Your task to perform on an android device: Open settings on Google Maps Image 0: 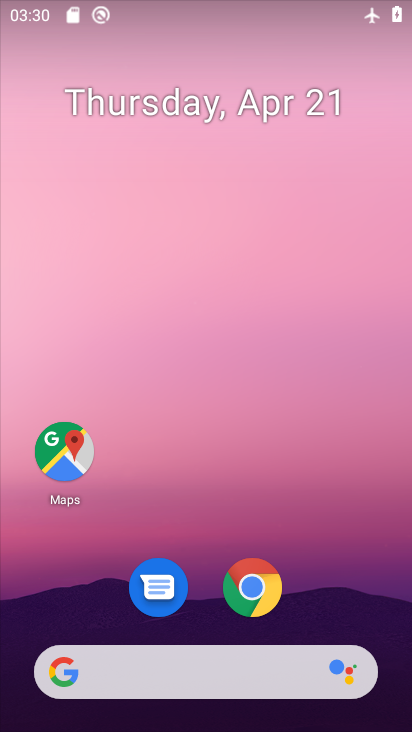
Step 0: drag from (342, 608) to (379, 225)
Your task to perform on an android device: Open settings on Google Maps Image 1: 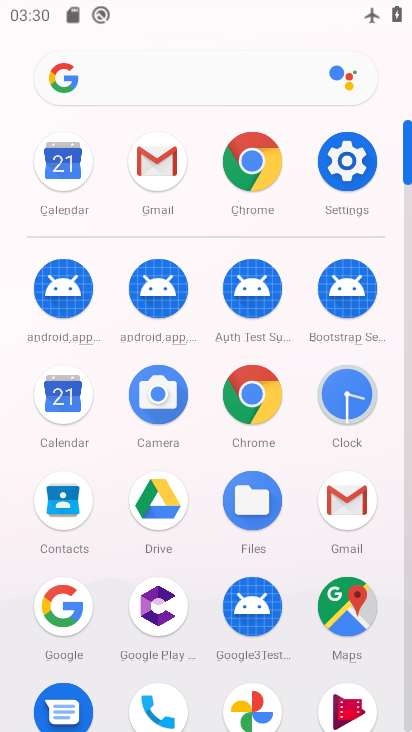
Step 1: click (357, 614)
Your task to perform on an android device: Open settings on Google Maps Image 2: 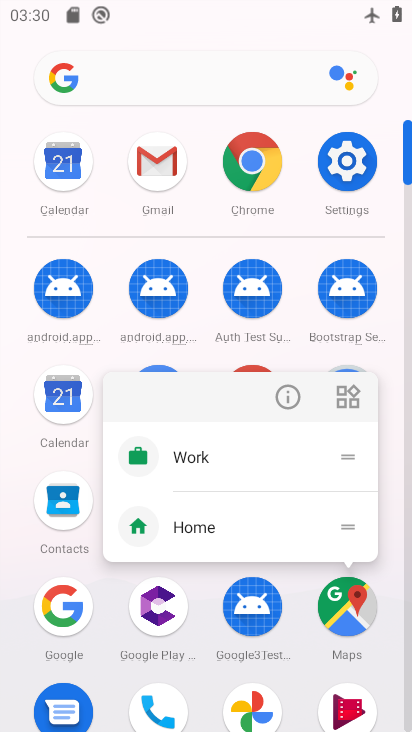
Step 2: click (357, 614)
Your task to perform on an android device: Open settings on Google Maps Image 3: 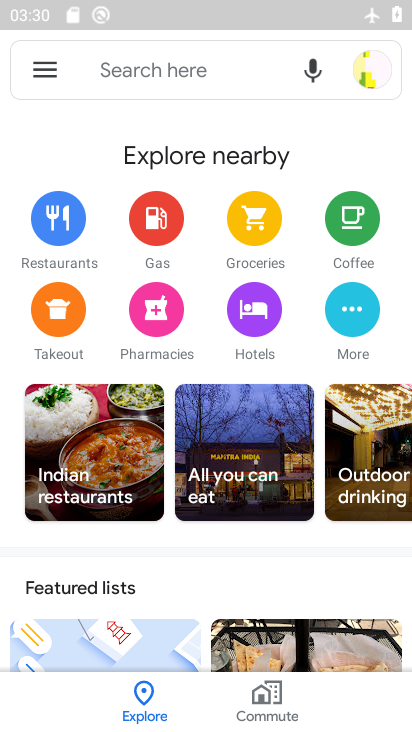
Step 3: click (40, 72)
Your task to perform on an android device: Open settings on Google Maps Image 4: 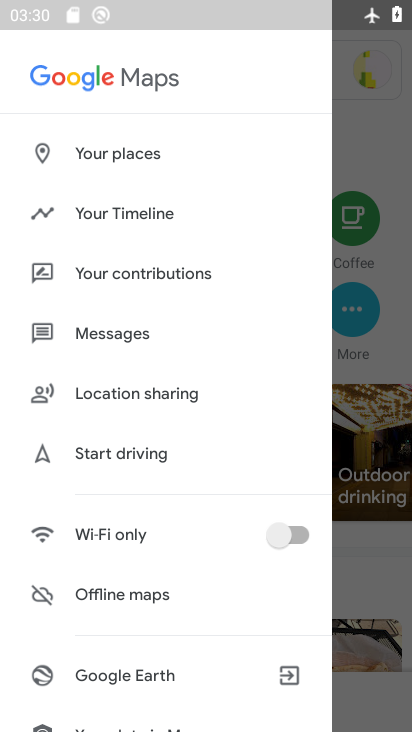
Step 4: drag from (231, 474) to (242, 348)
Your task to perform on an android device: Open settings on Google Maps Image 5: 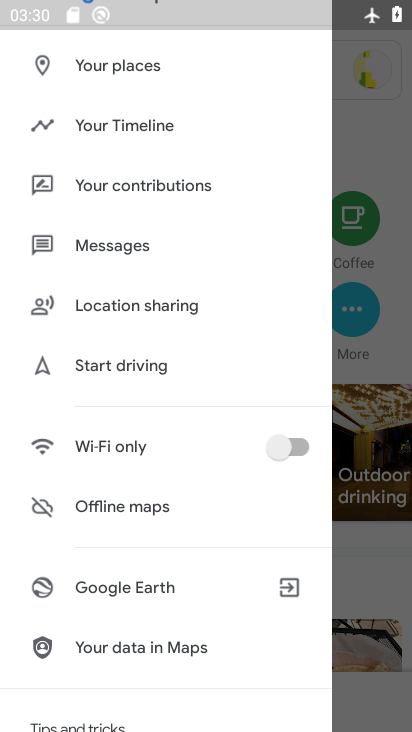
Step 5: drag from (223, 466) to (228, 313)
Your task to perform on an android device: Open settings on Google Maps Image 6: 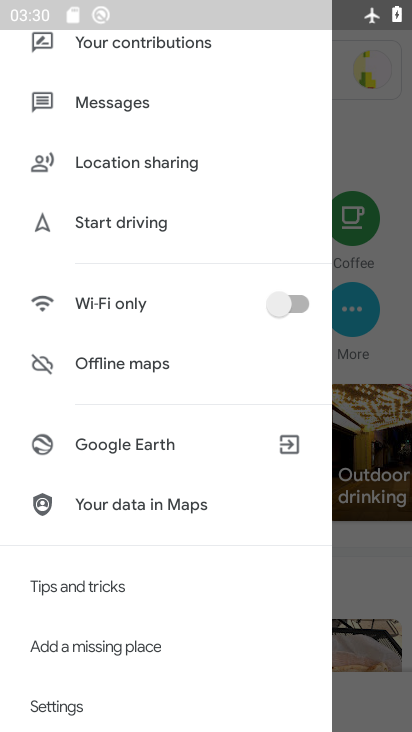
Step 6: drag from (229, 522) to (231, 359)
Your task to perform on an android device: Open settings on Google Maps Image 7: 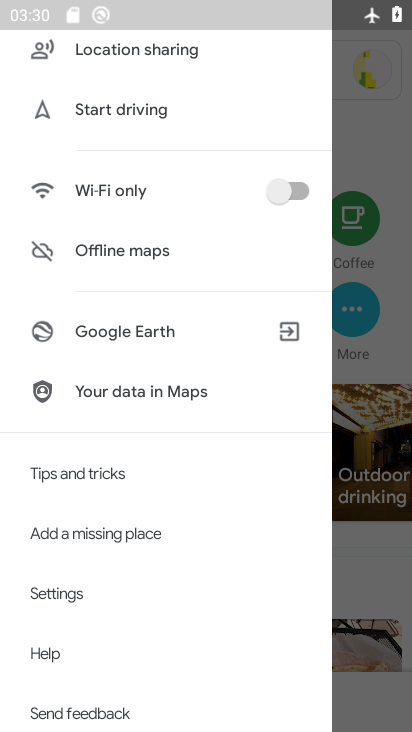
Step 7: drag from (213, 571) to (218, 376)
Your task to perform on an android device: Open settings on Google Maps Image 8: 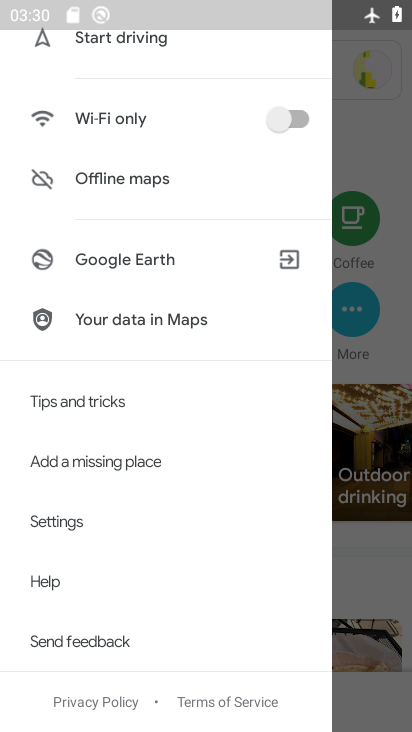
Step 8: click (66, 519)
Your task to perform on an android device: Open settings on Google Maps Image 9: 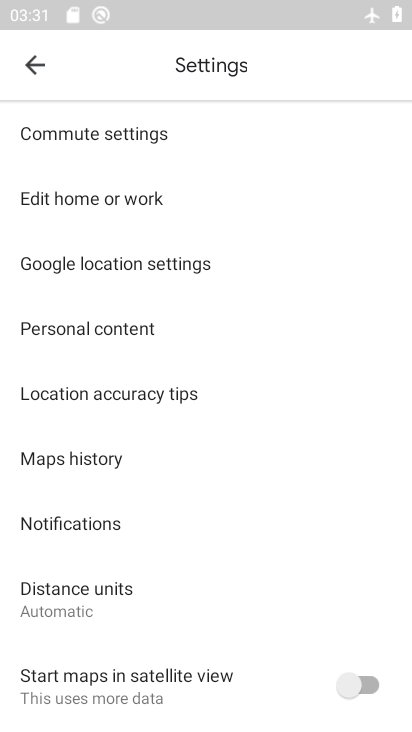
Step 9: task complete